Your task to perform on an android device: Go to location settings Image 0: 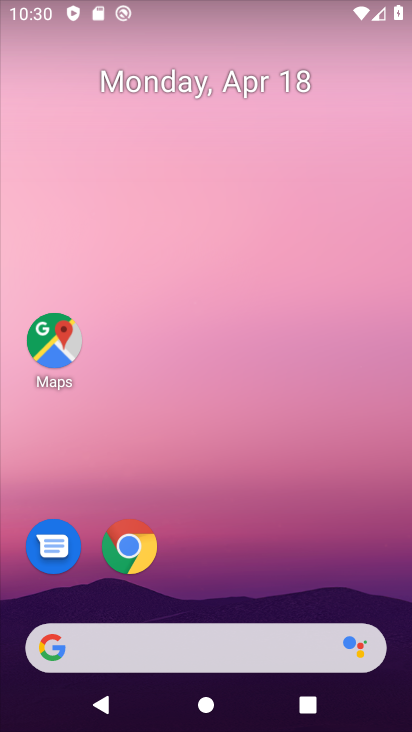
Step 0: drag from (296, 722) to (298, 224)
Your task to perform on an android device: Go to location settings Image 1: 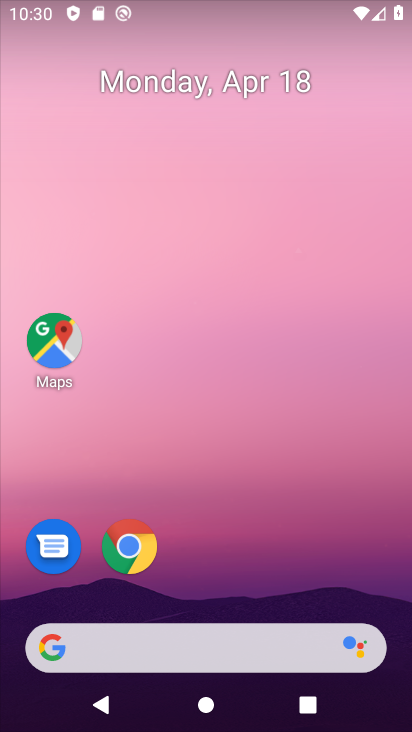
Step 1: drag from (239, 456) to (195, 128)
Your task to perform on an android device: Go to location settings Image 2: 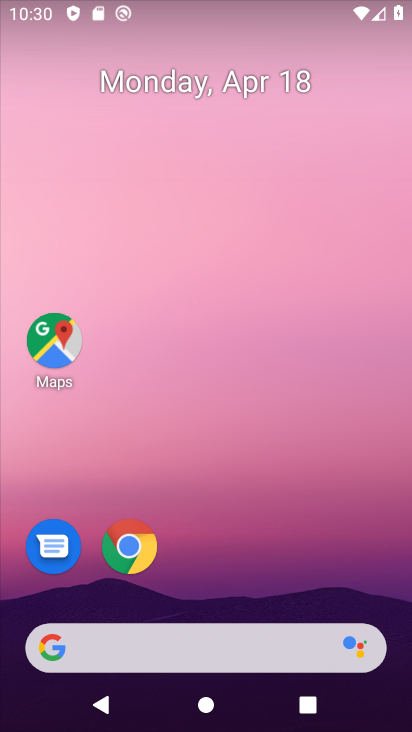
Step 2: drag from (235, 393) to (192, 172)
Your task to perform on an android device: Go to location settings Image 3: 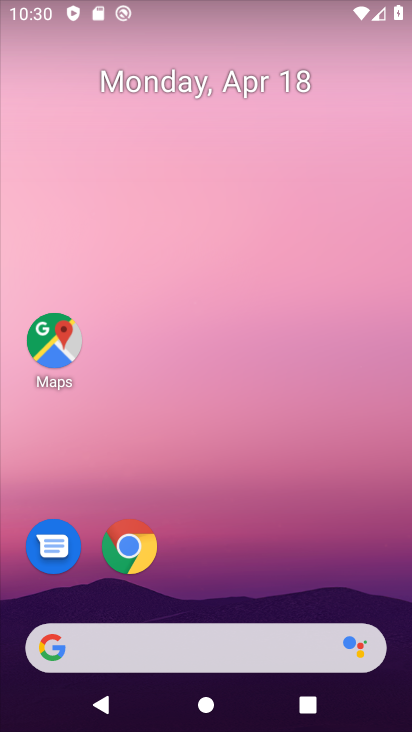
Step 3: drag from (240, 485) to (138, 81)
Your task to perform on an android device: Go to location settings Image 4: 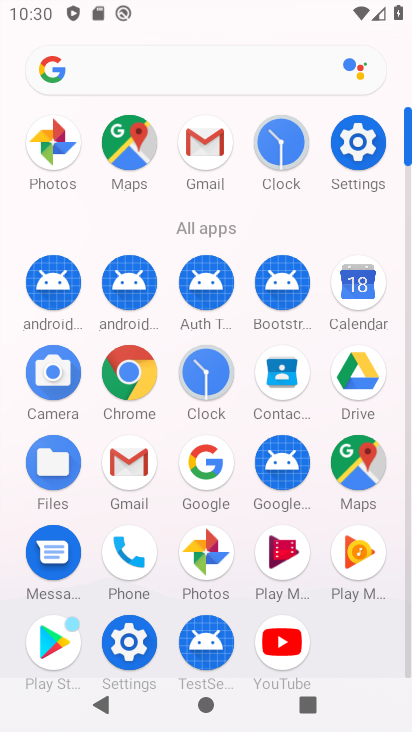
Step 4: click (355, 151)
Your task to perform on an android device: Go to location settings Image 5: 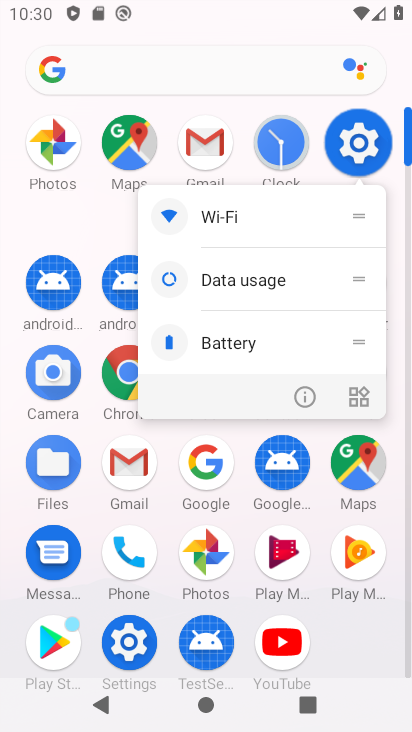
Step 5: click (355, 151)
Your task to perform on an android device: Go to location settings Image 6: 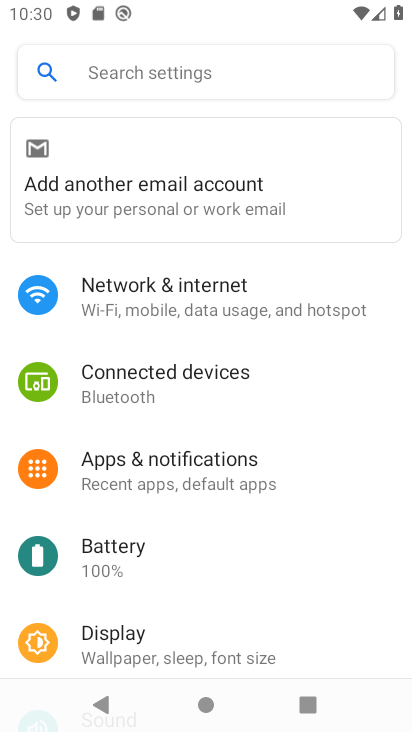
Step 6: drag from (237, 364) to (241, 286)
Your task to perform on an android device: Go to location settings Image 7: 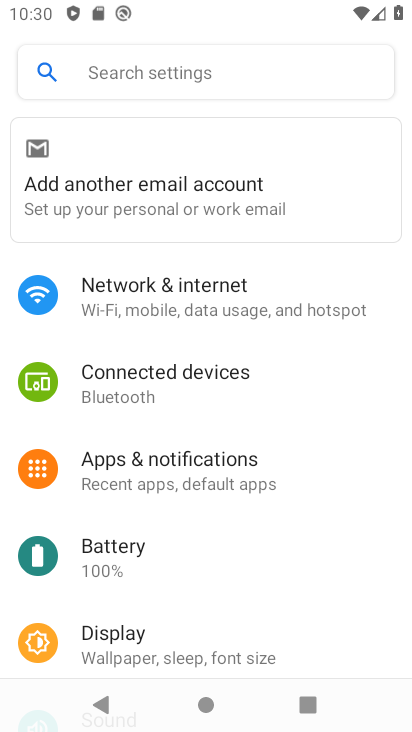
Step 7: drag from (141, 286) to (141, 173)
Your task to perform on an android device: Go to location settings Image 8: 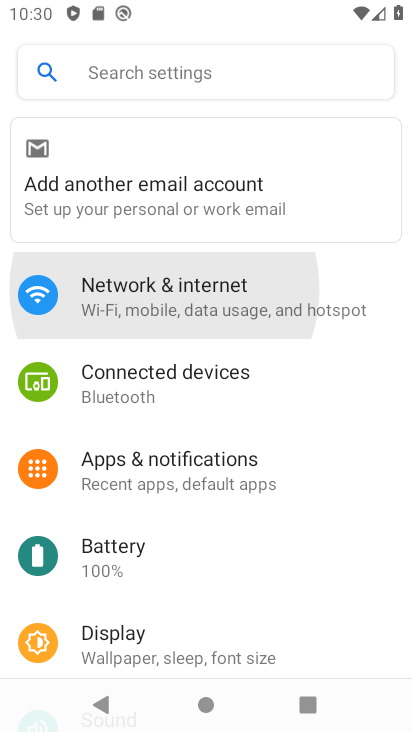
Step 8: drag from (189, 413) to (289, 20)
Your task to perform on an android device: Go to location settings Image 9: 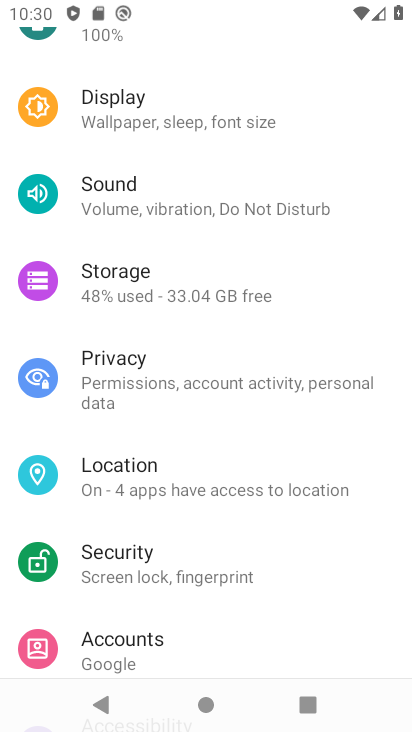
Step 9: drag from (205, 458) to (213, 521)
Your task to perform on an android device: Go to location settings Image 10: 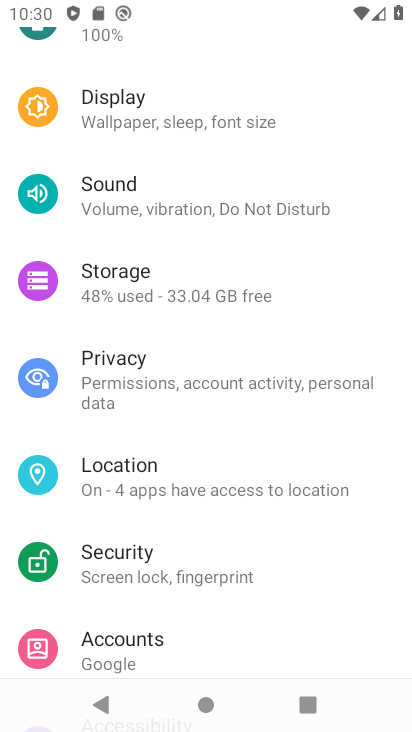
Step 10: click (163, 486)
Your task to perform on an android device: Go to location settings Image 11: 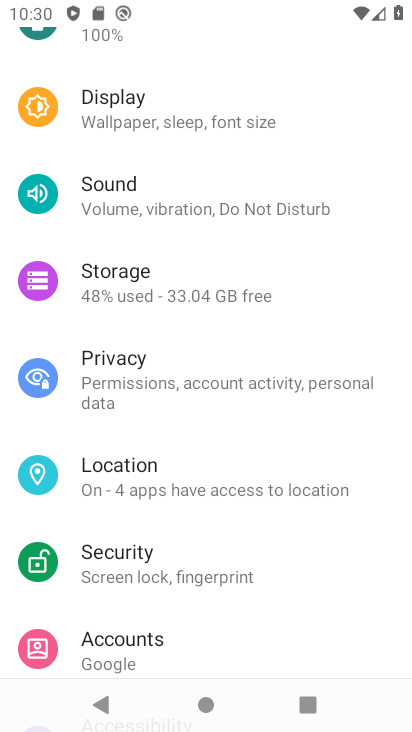
Step 11: click (163, 486)
Your task to perform on an android device: Go to location settings Image 12: 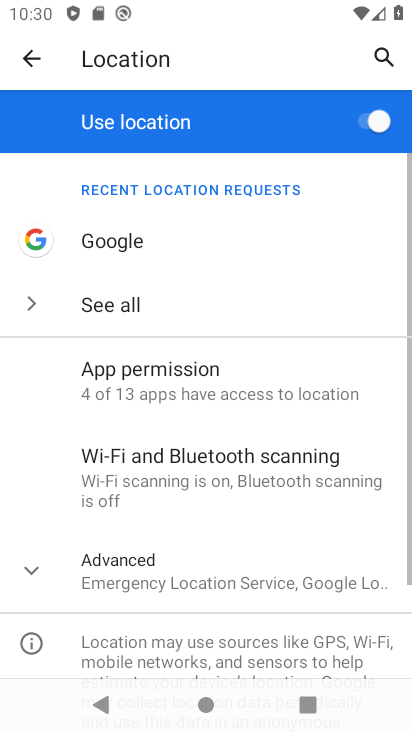
Step 12: task complete